Your task to perform on an android device: Open location settings Image 0: 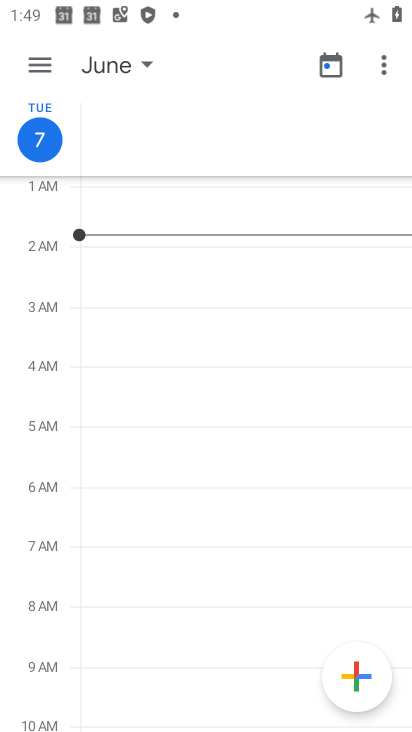
Step 0: press home button
Your task to perform on an android device: Open location settings Image 1: 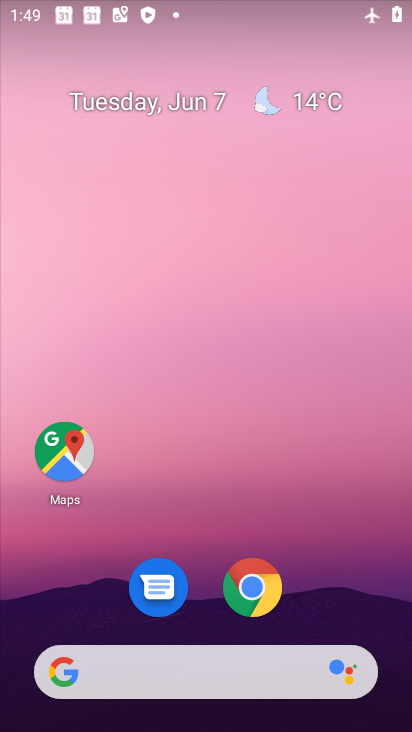
Step 1: drag from (185, 685) to (240, 204)
Your task to perform on an android device: Open location settings Image 2: 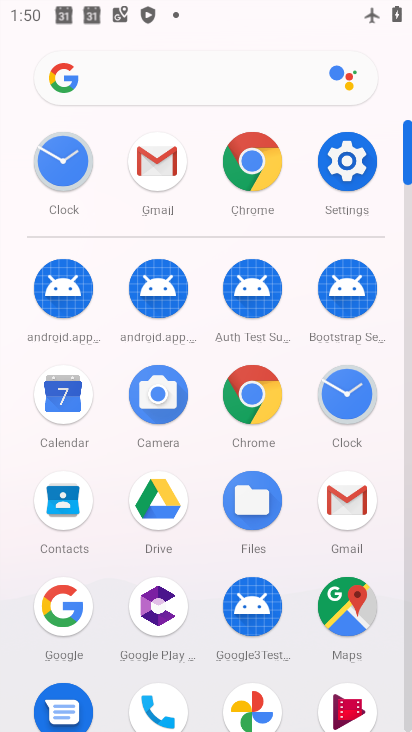
Step 2: click (358, 173)
Your task to perform on an android device: Open location settings Image 3: 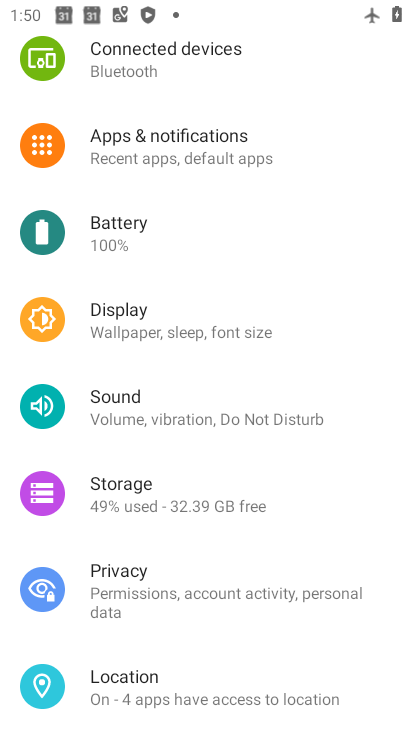
Step 3: click (185, 687)
Your task to perform on an android device: Open location settings Image 4: 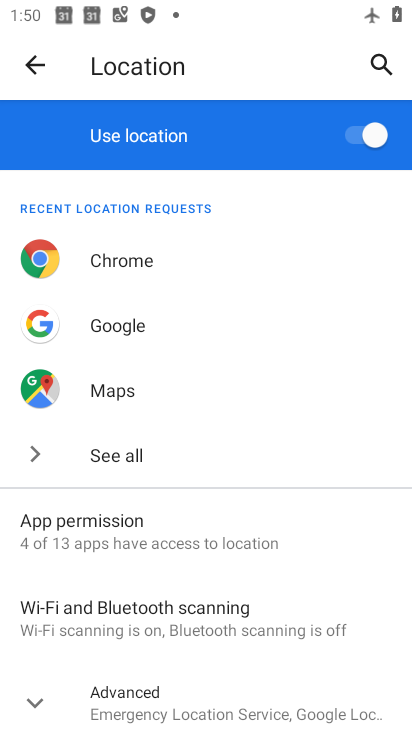
Step 4: task complete